Your task to perform on an android device: What's on my calendar today? Image 0: 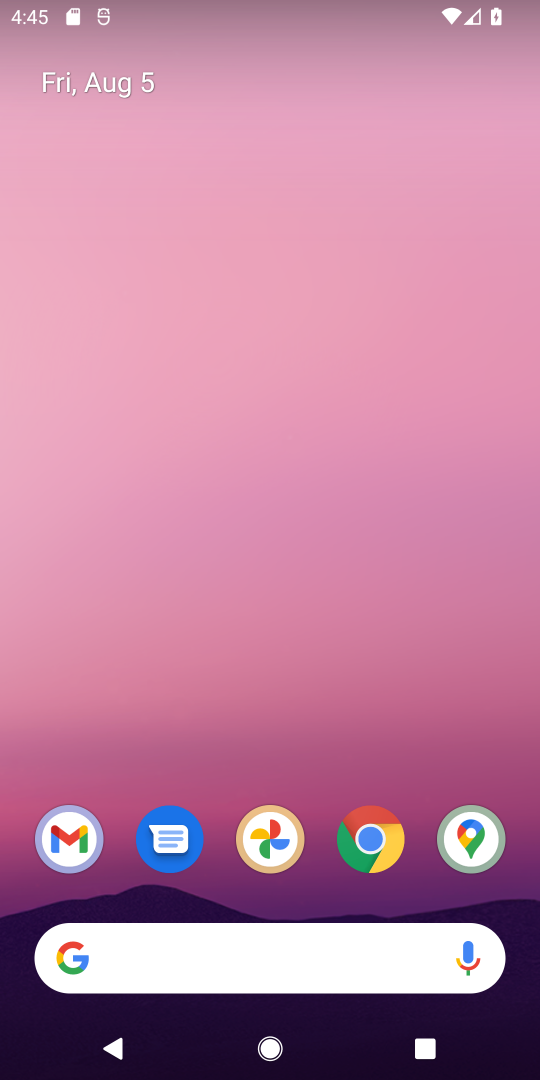
Step 0: drag from (237, 793) to (185, 193)
Your task to perform on an android device: What's on my calendar today? Image 1: 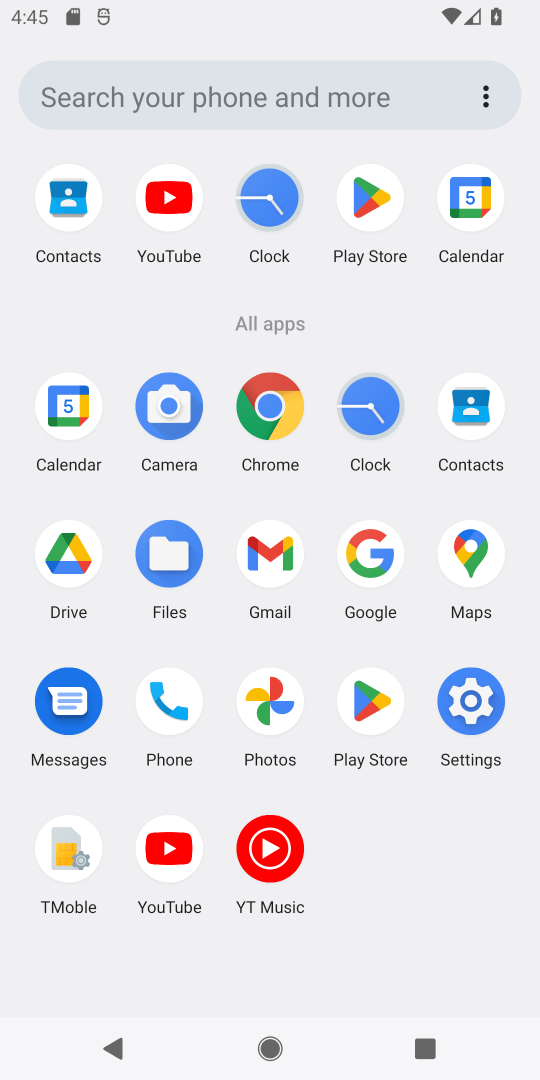
Step 1: click (452, 215)
Your task to perform on an android device: What's on my calendar today? Image 2: 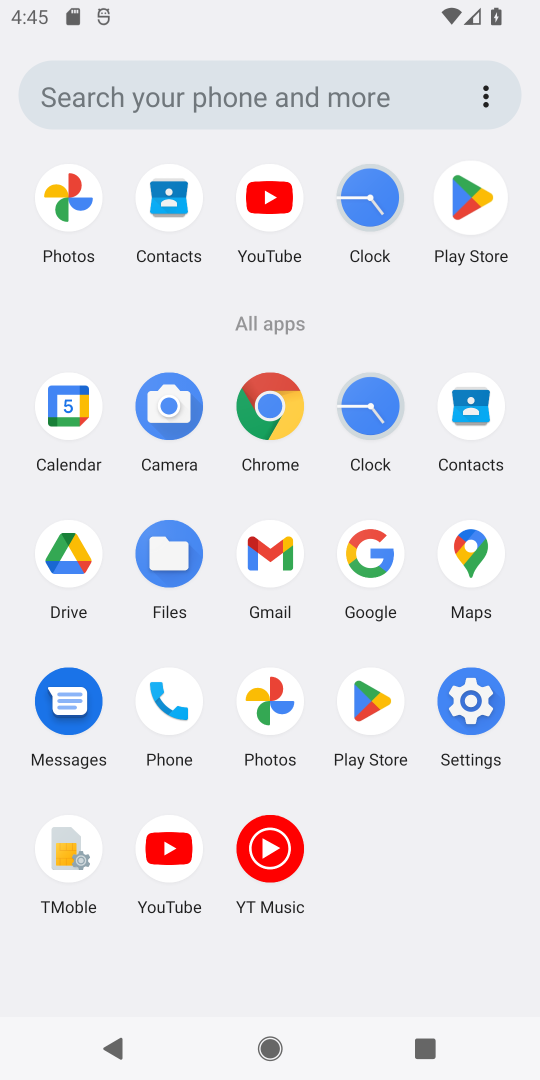
Step 2: click (83, 418)
Your task to perform on an android device: What's on my calendar today? Image 3: 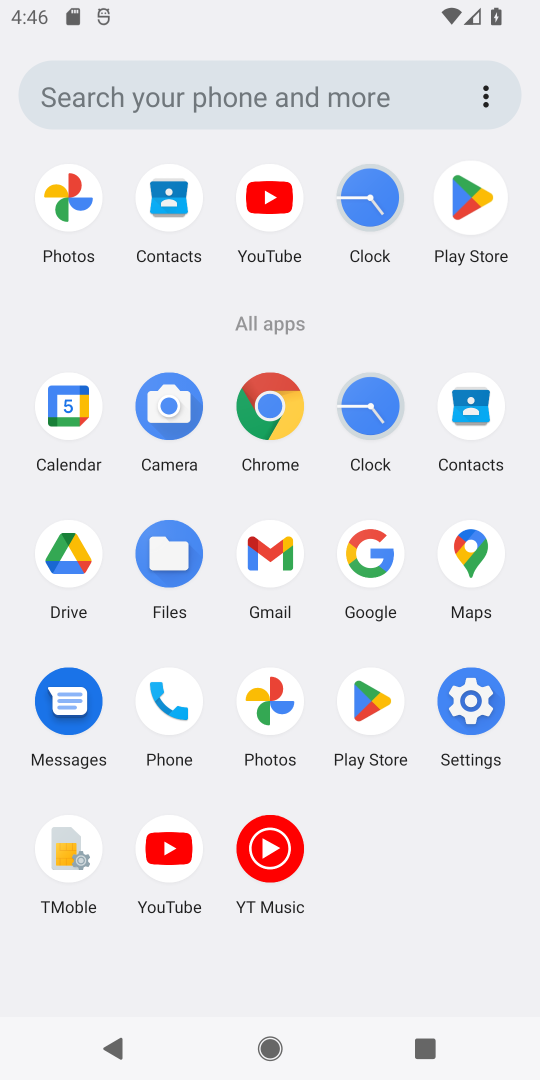
Step 3: click (82, 420)
Your task to perform on an android device: What's on my calendar today? Image 4: 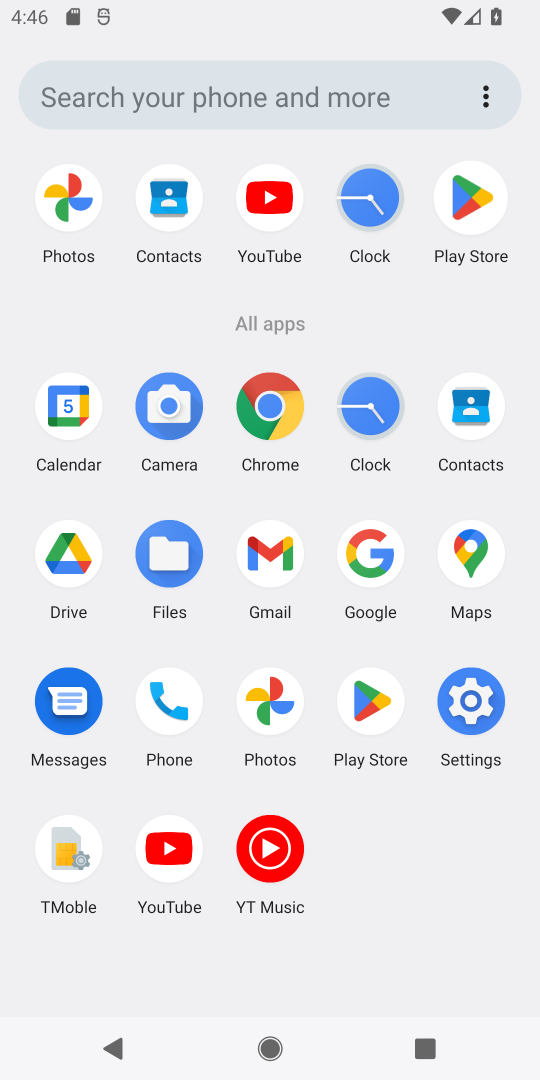
Step 4: click (82, 420)
Your task to perform on an android device: What's on my calendar today? Image 5: 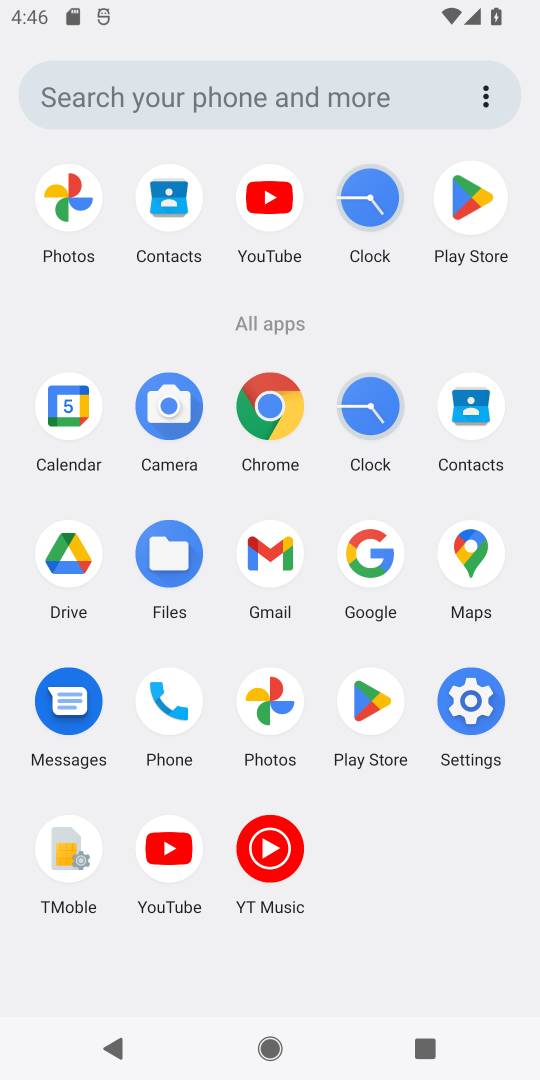
Step 5: click (77, 397)
Your task to perform on an android device: What's on my calendar today? Image 6: 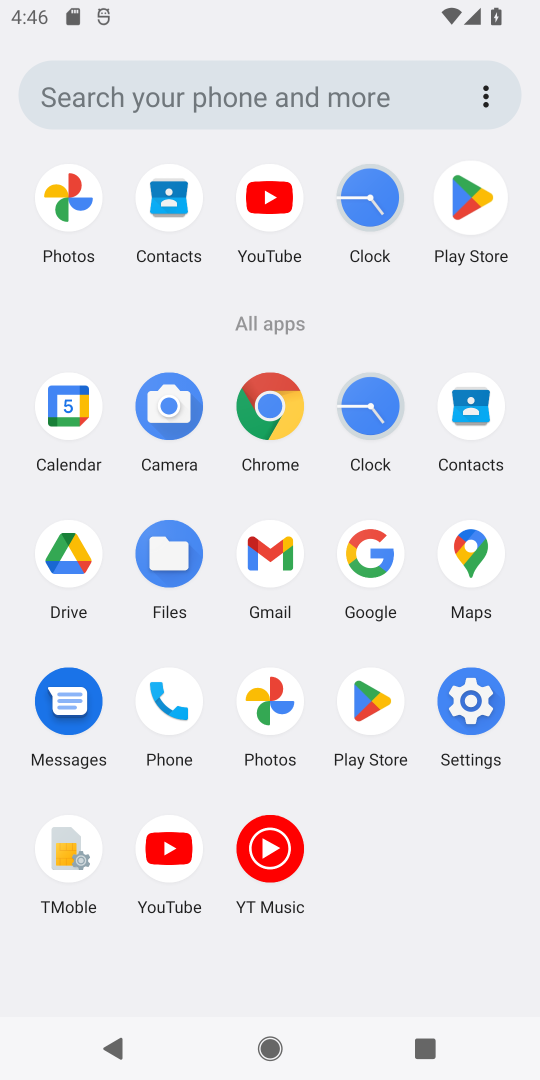
Step 6: click (76, 413)
Your task to perform on an android device: What's on my calendar today? Image 7: 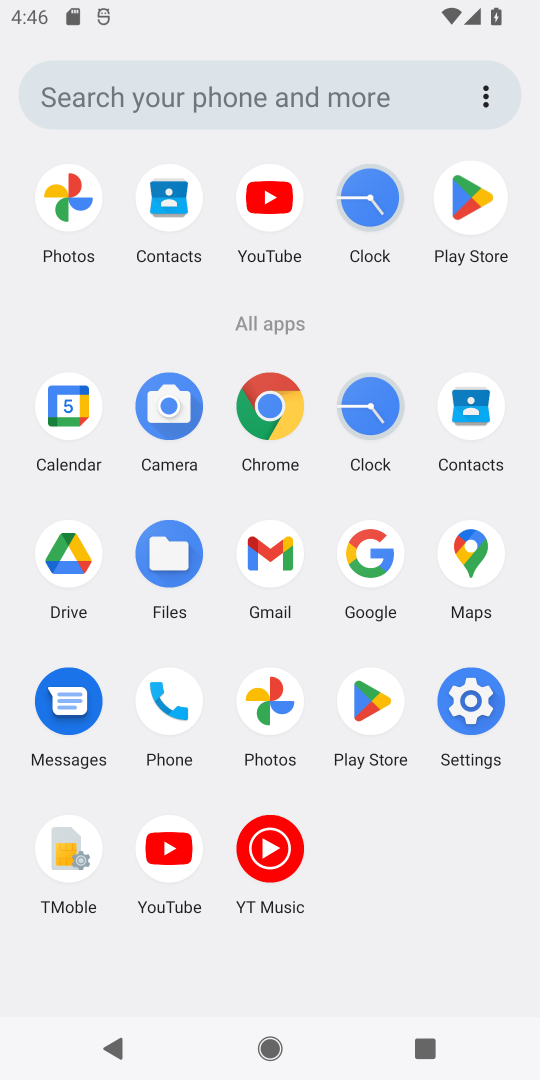
Step 7: click (62, 408)
Your task to perform on an android device: What's on my calendar today? Image 8: 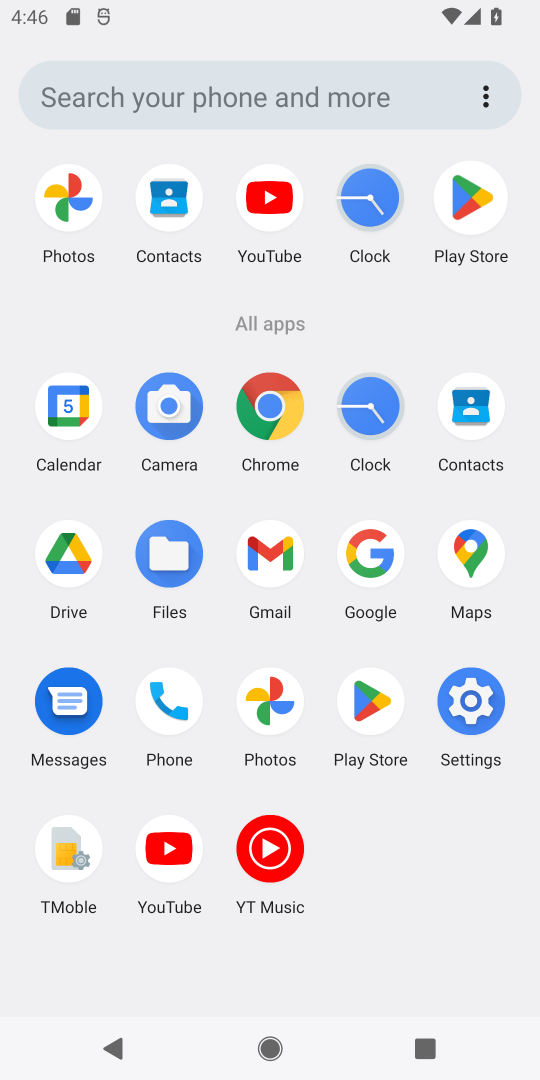
Step 8: click (86, 406)
Your task to perform on an android device: What's on my calendar today? Image 9: 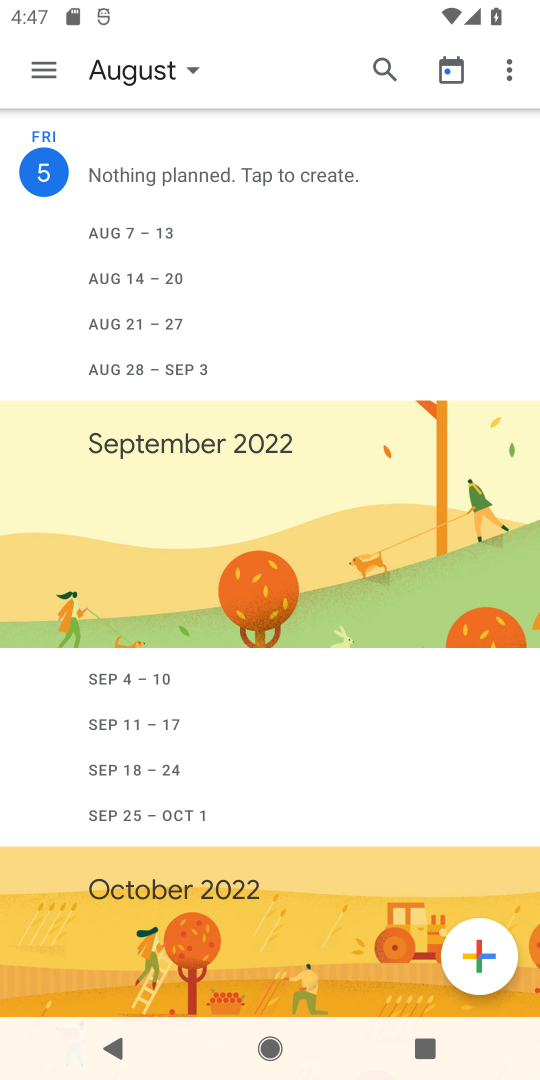
Step 9: click (179, 87)
Your task to perform on an android device: What's on my calendar today? Image 10: 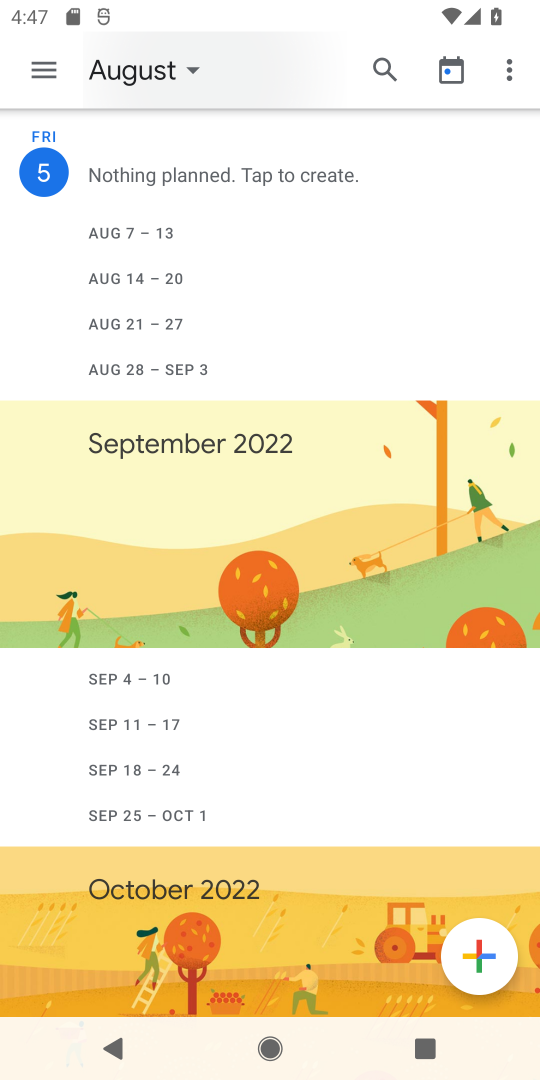
Step 10: task complete